Your task to perform on an android device: open app "Airtel Thanks" (install if not already installed) Image 0: 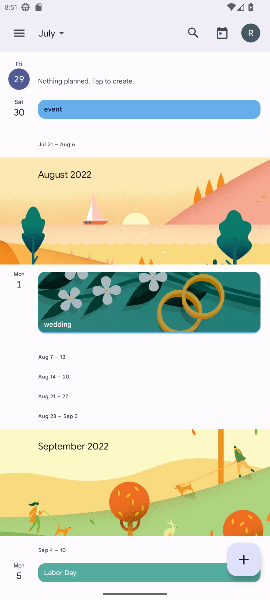
Step 0: press home button
Your task to perform on an android device: open app "Airtel Thanks" (install if not already installed) Image 1: 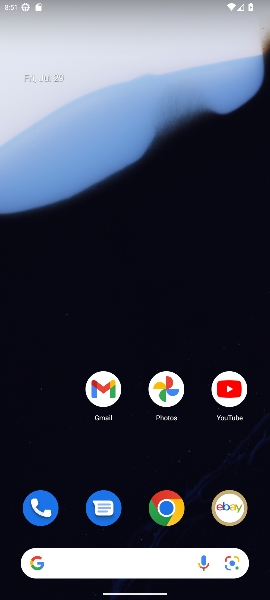
Step 1: drag from (184, 551) to (216, 6)
Your task to perform on an android device: open app "Airtel Thanks" (install if not already installed) Image 2: 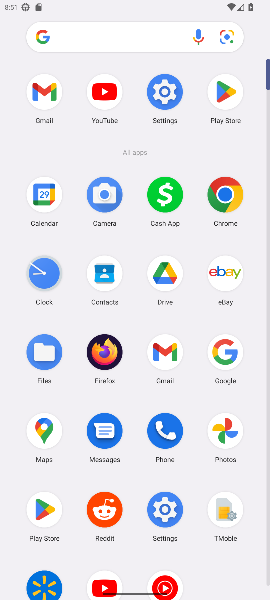
Step 2: click (50, 509)
Your task to perform on an android device: open app "Airtel Thanks" (install if not already installed) Image 3: 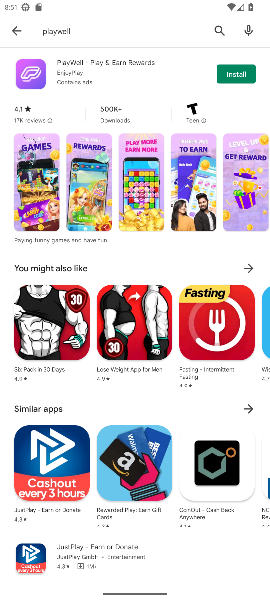
Step 3: click (217, 27)
Your task to perform on an android device: open app "Airtel Thanks" (install if not already installed) Image 4: 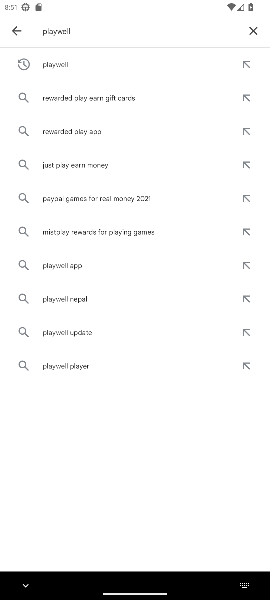
Step 4: click (254, 32)
Your task to perform on an android device: open app "Airtel Thanks" (install if not already installed) Image 5: 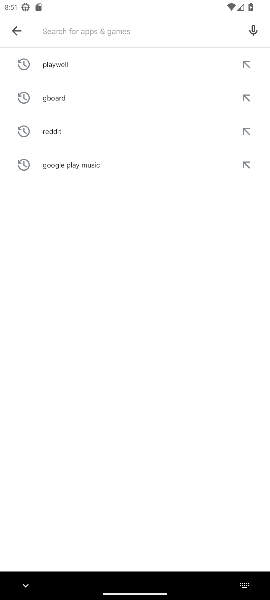
Step 5: click (135, 34)
Your task to perform on an android device: open app "Airtel Thanks" (install if not already installed) Image 6: 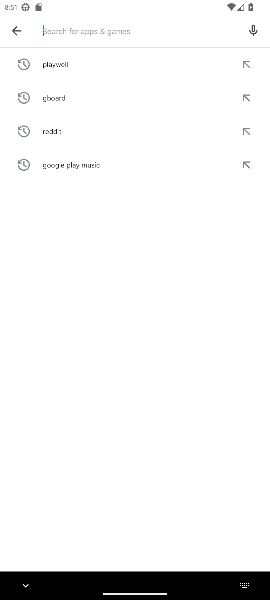
Step 6: type "airtel thanks"
Your task to perform on an android device: open app "Airtel Thanks" (install if not already installed) Image 7: 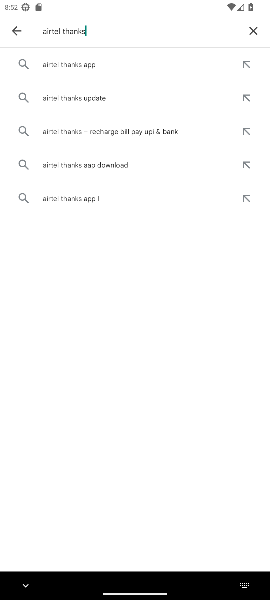
Step 7: click (70, 64)
Your task to perform on an android device: open app "Airtel Thanks" (install if not already installed) Image 8: 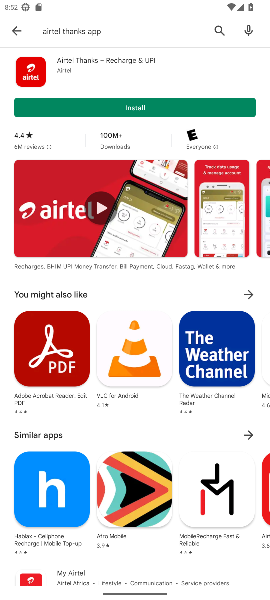
Step 8: click (139, 106)
Your task to perform on an android device: open app "Airtel Thanks" (install if not already installed) Image 9: 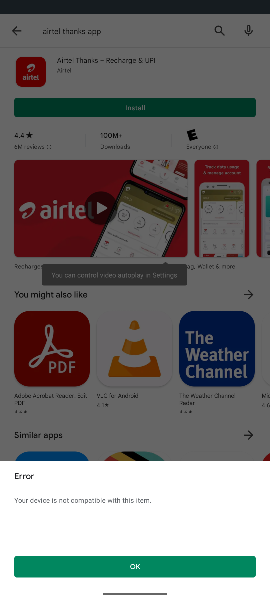
Step 9: task complete